Your task to perform on an android device: turn off translation in the chrome app Image 0: 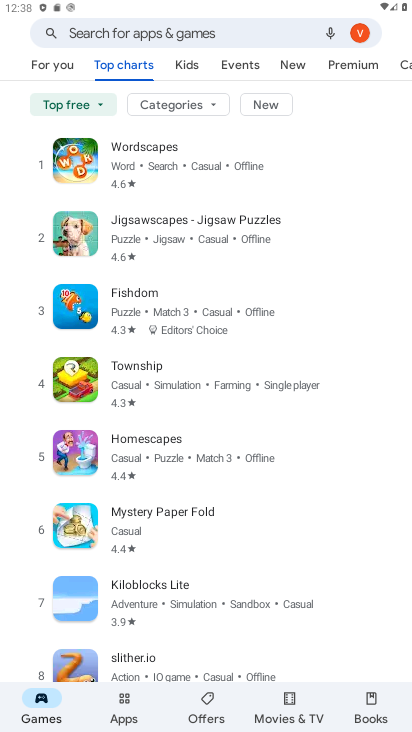
Step 0: press home button
Your task to perform on an android device: turn off translation in the chrome app Image 1: 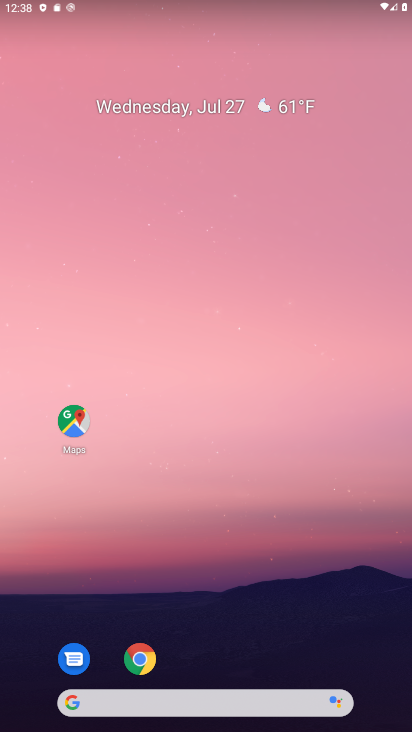
Step 1: click (157, 654)
Your task to perform on an android device: turn off translation in the chrome app Image 2: 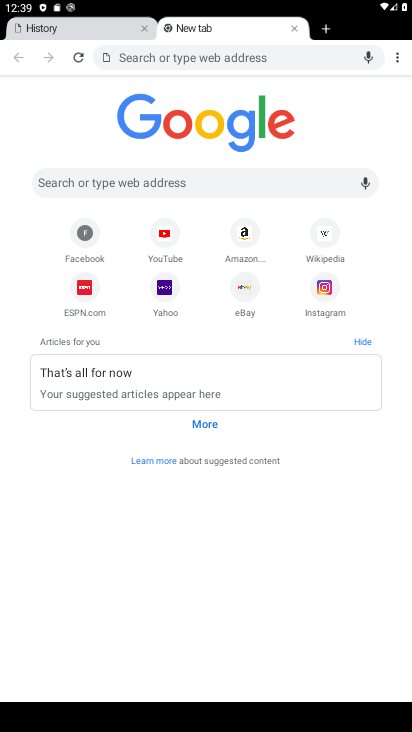
Step 2: click (395, 68)
Your task to perform on an android device: turn off translation in the chrome app Image 3: 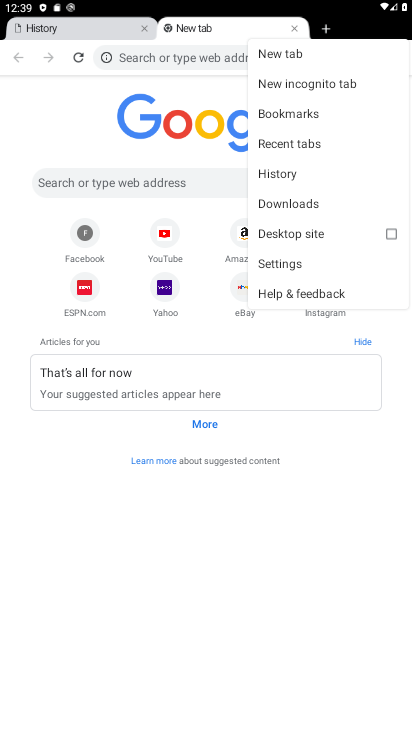
Step 3: click (296, 272)
Your task to perform on an android device: turn off translation in the chrome app Image 4: 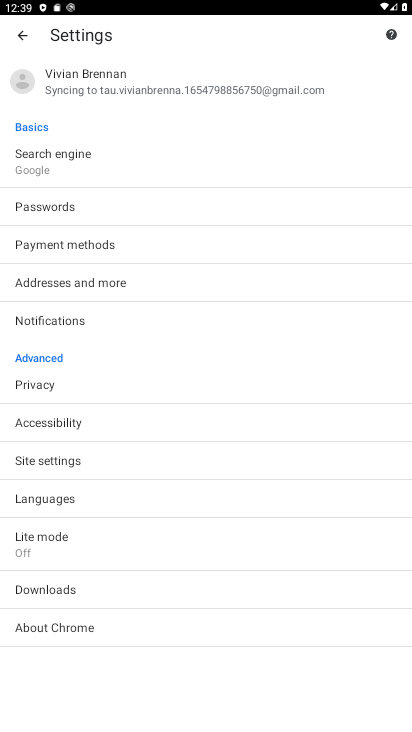
Step 4: click (97, 500)
Your task to perform on an android device: turn off translation in the chrome app Image 5: 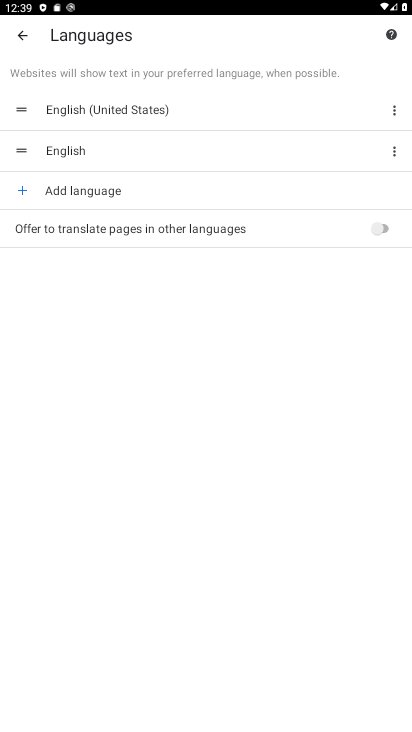
Step 5: task complete